Your task to perform on an android device: Open privacy settings Image 0: 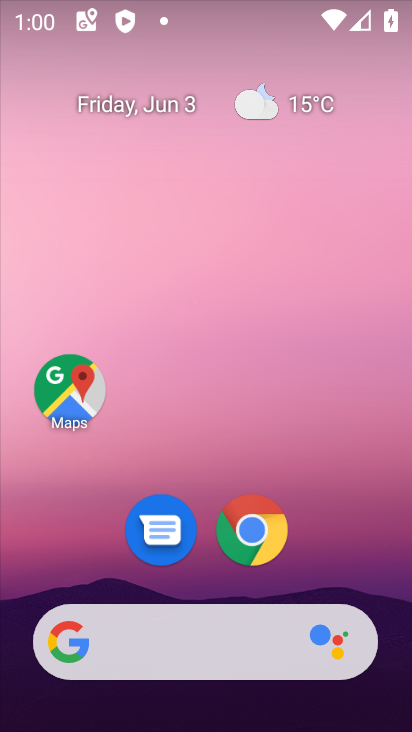
Step 0: drag from (313, 488) to (271, 221)
Your task to perform on an android device: Open privacy settings Image 1: 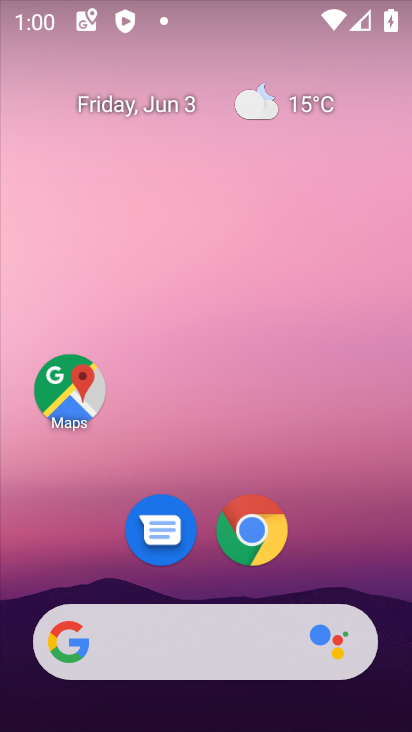
Step 1: drag from (327, 551) to (231, 55)
Your task to perform on an android device: Open privacy settings Image 2: 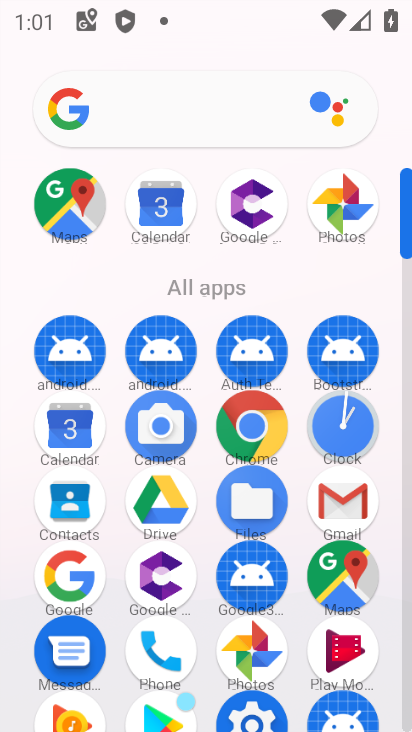
Step 2: drag from (204, 680) to (186, 353)
Your task to perform on an android device: Open privacy settings Image 3: 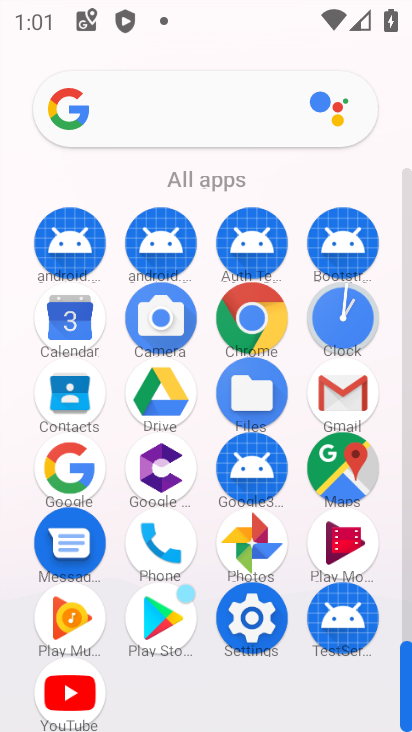
Step 3: click (260, 600)
Your task to perform on an android device: Open privacy settings Image 4: 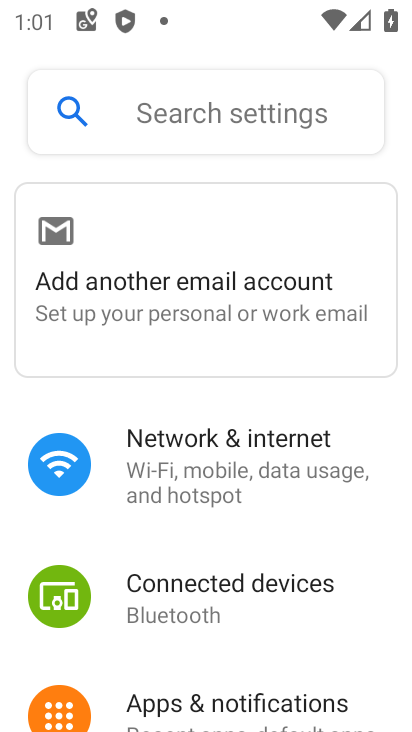
Step 4: drag from (109, 537) to (166, 7)
Your task to perform on an android device: Open privacy settings Image 5: 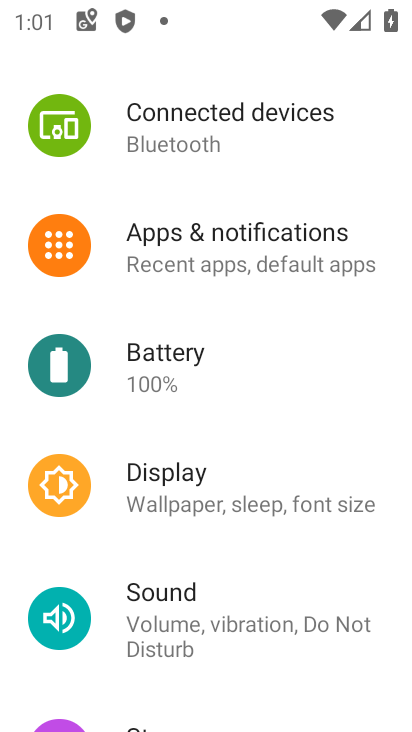
Step 5: drag from (155, 173) to (185, 23)
Your task to perform on an android device: Open privacy settings Image 6: 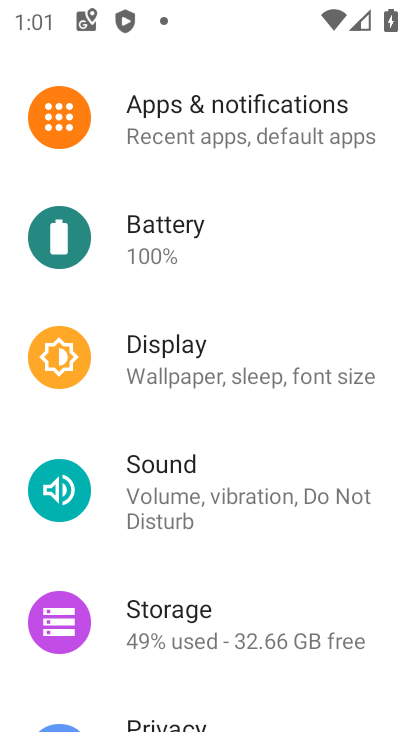
Step 6: click (219, 726)
Your task to perform on an android device: Open privacy settings Image 7: 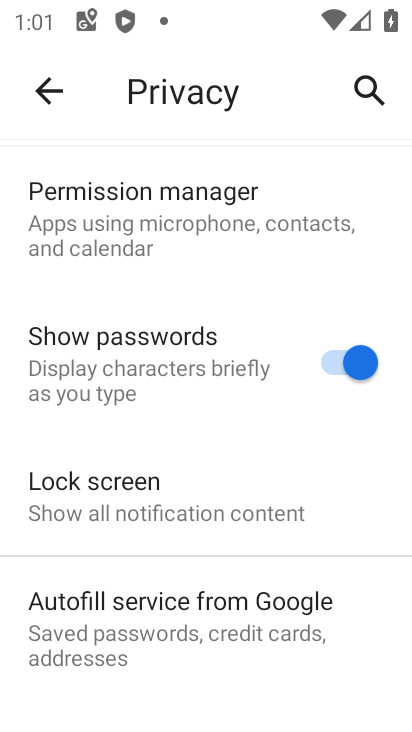
Step 7: task complete